Your task to perform on an android device: Open calendar and show me the fourth week of next month Image 0: 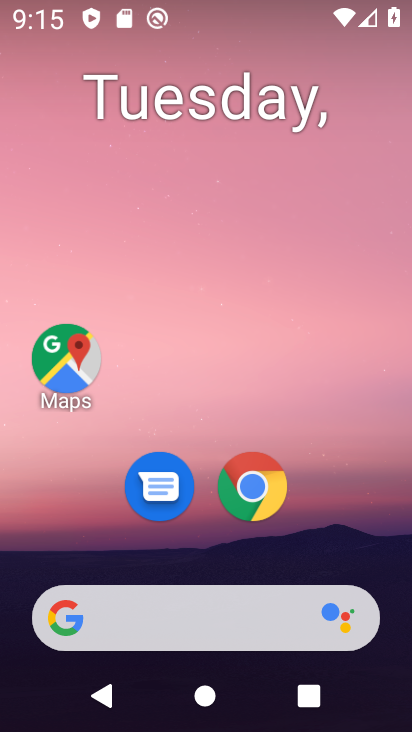
Step 0: press home button
Your task to perform on an android device: Open calendar and show me the fourth week of next month Image 1: 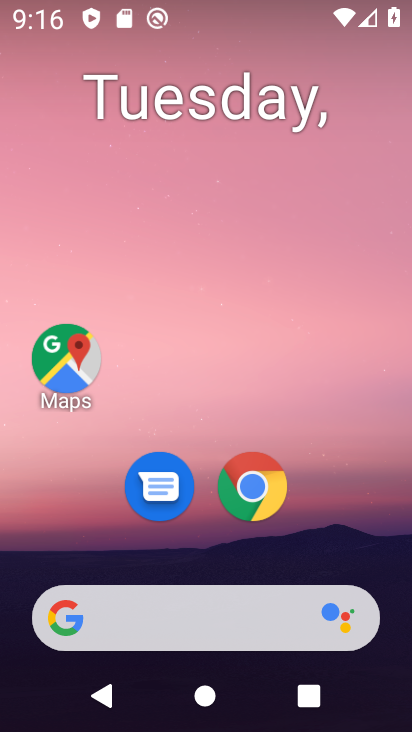
Step 1: drag from (389, 545) to (397, 200)
Your task to perform on an android device: Open calendar and show me the fourth week of next month Image 2: 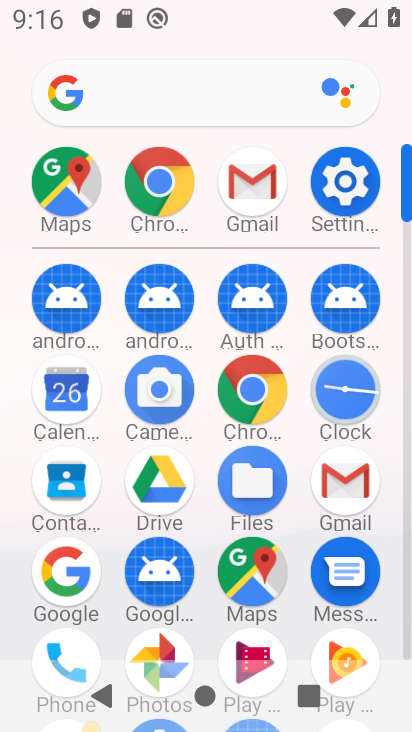
Step 2: click (70, 402)
Your task to perform on an android device: Open calendar and show me the fourth week of next month Image 3: 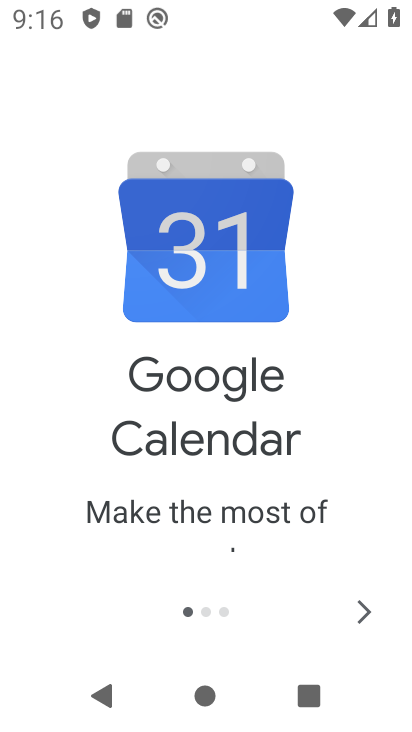
Step 3: click (358, 612)
Your task to perform on an android device: Open calendar and show me the fourth week of next month Image 4: 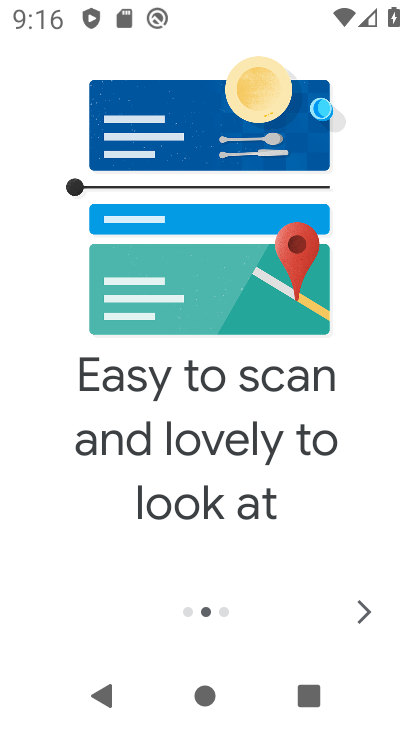
Step 4: click (358, 612)
Your task to perform on an android device: Open calendar and show me the fourth week of next month Image 5: 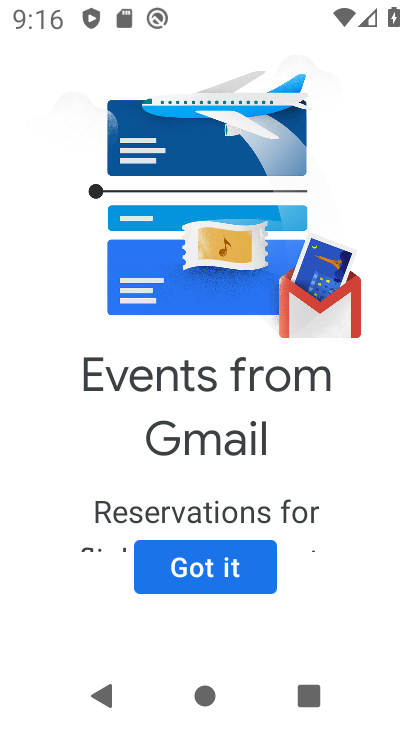
Step 5: click (241, 575)
Your task to perform on an android device: Open calendar and show me the fourth week of next month Image 6: 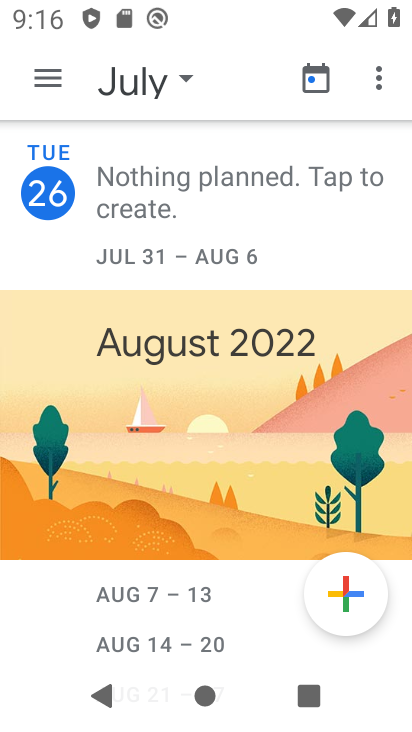
Step 6: click (189, 77)
Your task to perform on an android device: Open calendar and show me the fourth week of next month Image 7: 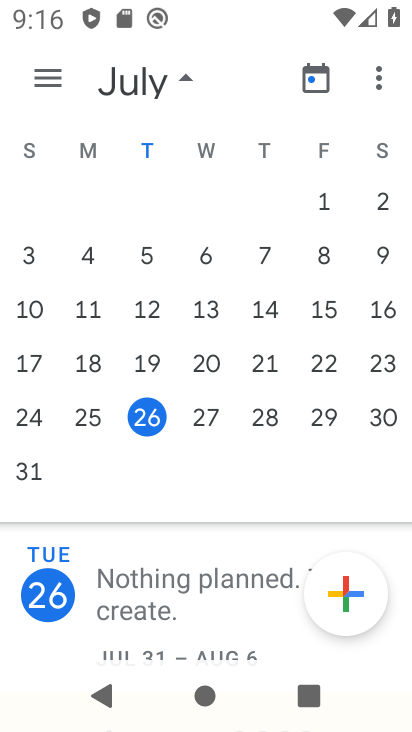
Step 7: drag from (385, 225) to (69, 225)
Your task to perform on an android device: Open calendar and show me the fourth week of next month Image 8: 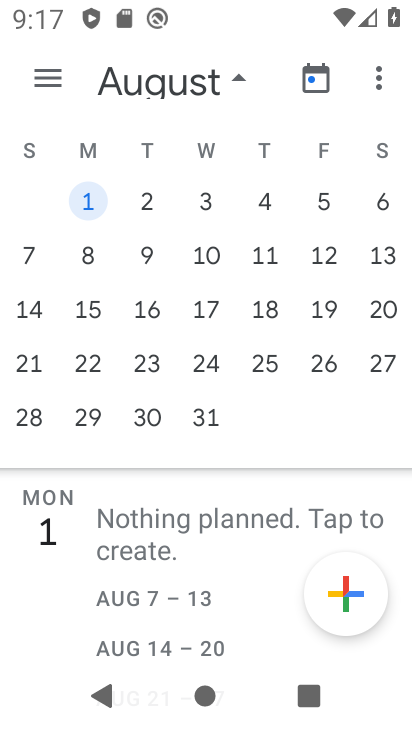
Step 8: click (87, 358)
Your task to perform on an android device: Open calendar and show me the fourth week of next month Image 9: 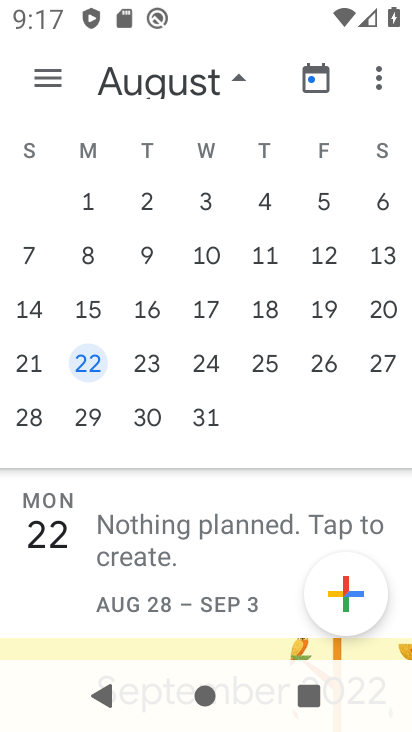
Step 9: task complete